Your task to perform on an android device: Go to Android settings Image 0: 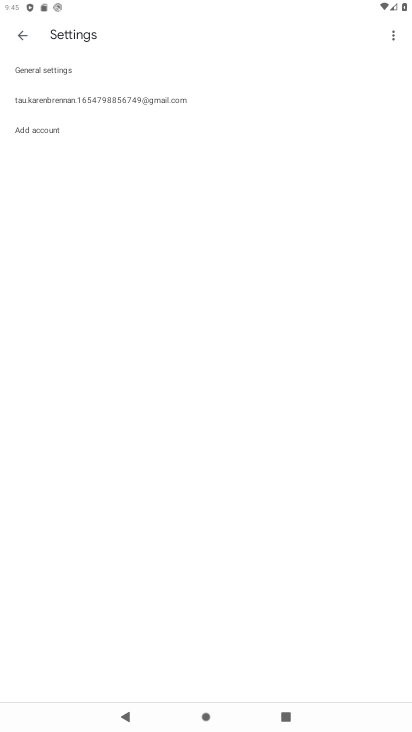
Step 0: task impossible